Your task to perform on an android device: Is it going to rain tomorrow? Image 0: 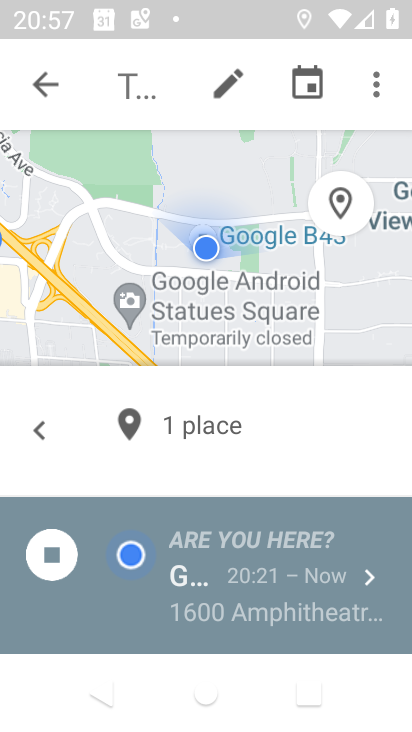
Step 0: press home button
Your task to perform on an android device: Is it going to rain tomorrow? Image 1: 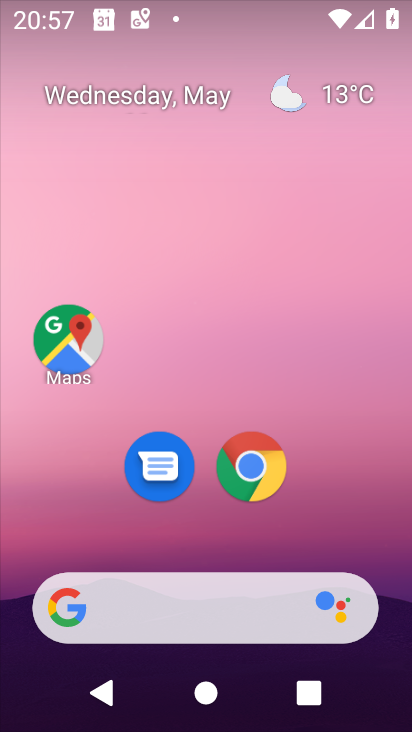
Step 1: click (339, 90)
Your task to perform on an android device: Is it going to rain tomorrow? Image 2: 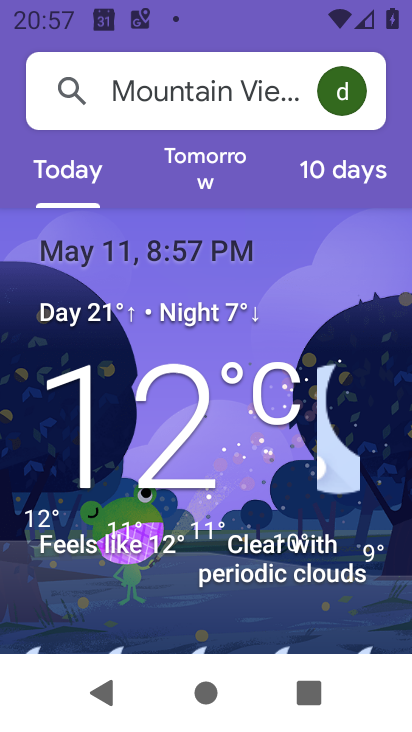
Step 2: click (206, 164)
Your task to perform on an android device: Is it going to rain tomorrow? Image 3: 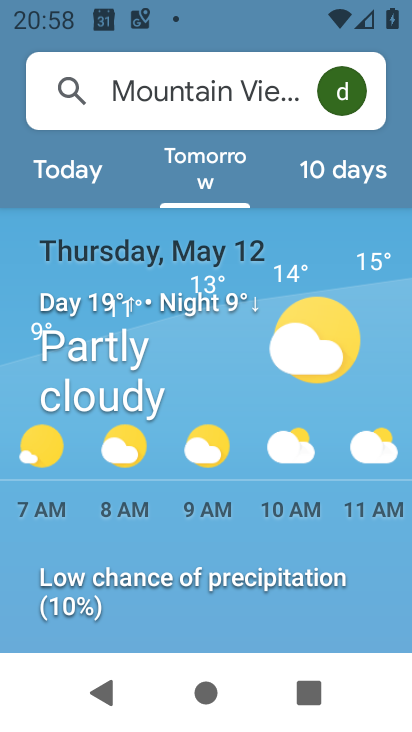
Step 3: drag from (306, 463) to (7, 456)
Your task to perform on an android device: Is it going to rain tomorrow? Image 4: 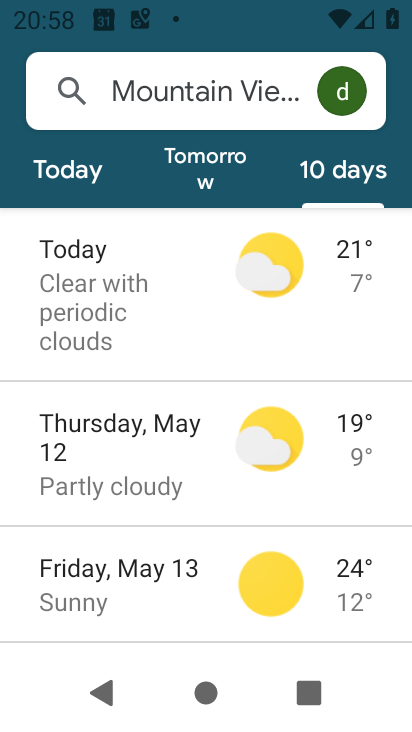
Step 4: click (217, 182)
Your task to perform on an android device: Is it going to rain tomorrow? Image 5: 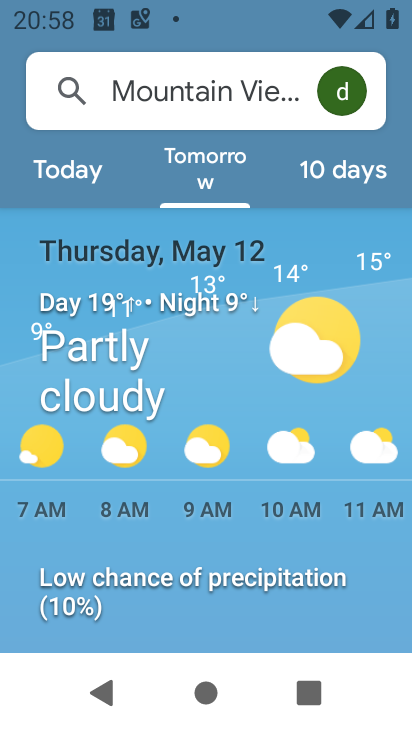
Step 5: drag from (351, 448) to (120, 456)
Your task to perform on an android device: Is it going to rain tomorrow? Image 6: 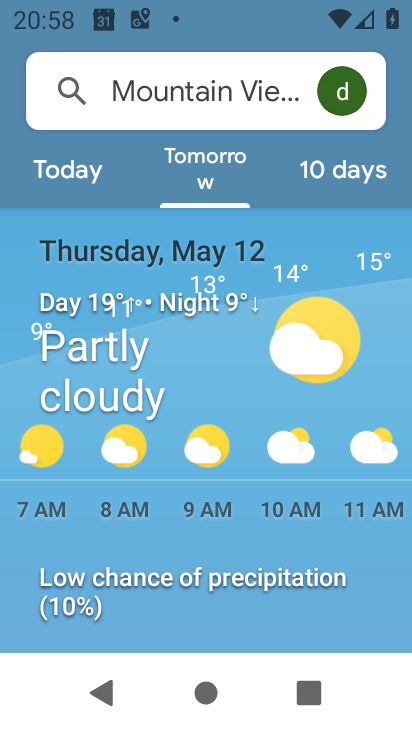
Step 6: drag from (94, 449) to (270, 479)
Your task to perform on an android device: Is it going to rain tomorrow? Image 7: 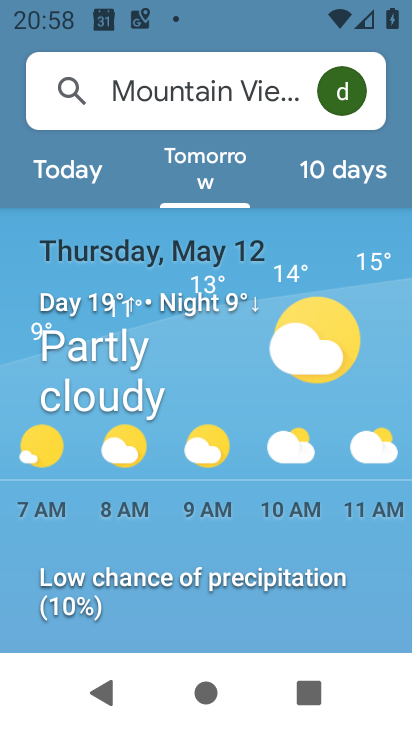
Step 7: drag from (351, 507) to (74, 517)
Your task to perform on an android device: Is it going to rain tomorrow? Image 8: 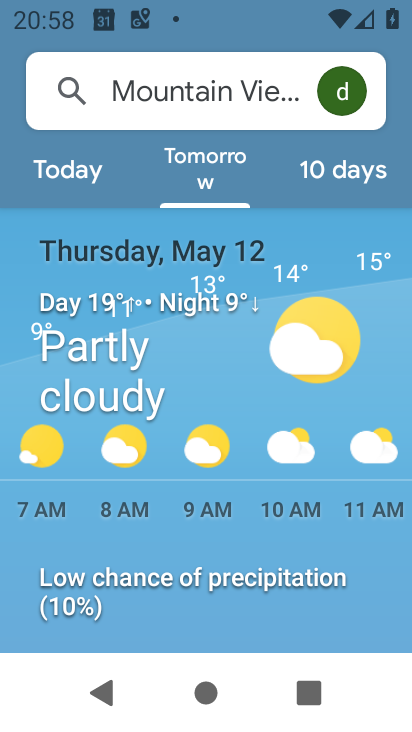
Step 8: drag from (371, 509) to (55, 518)
Your task to perform on an android device: Is it going to rain tomorrow? Image 9: 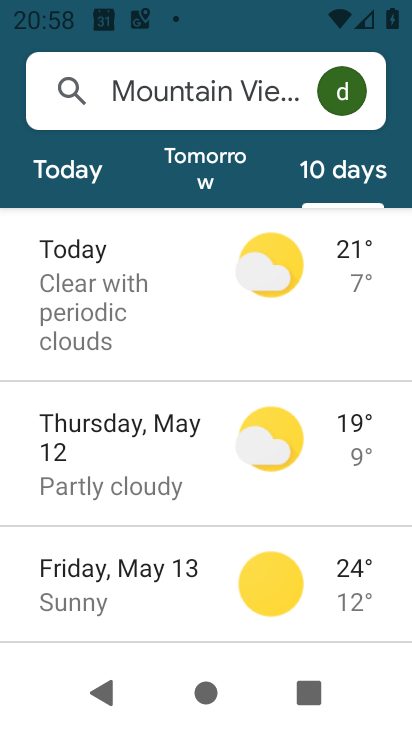
Step 9: click (195, 178)
Your task to perform on an android device: Is it going to rain tomorrow? Image 10: 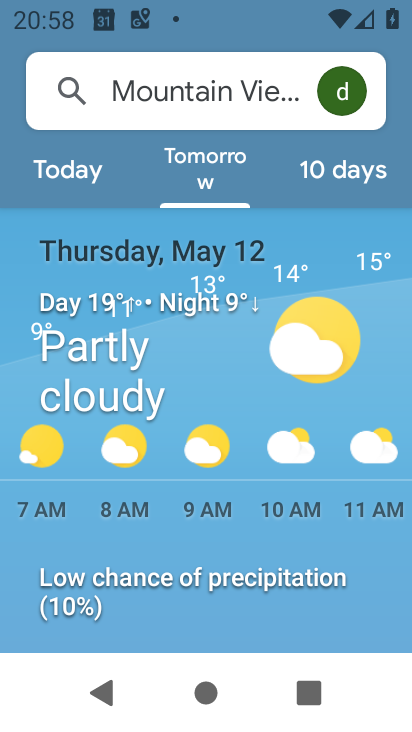
Step 10: drag from (175, 414) to (212, 251)
Your task to perform on an android device: Is it going to rain tomorrow? Image 11: 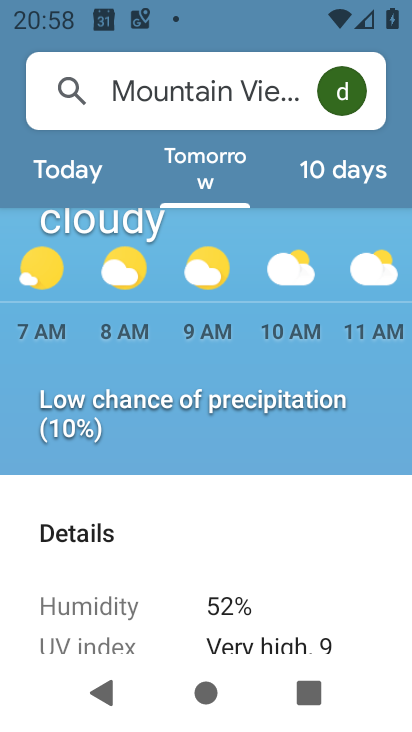
Step 11: drag from (377, 326) to (202, 334)
Your task to perform on an android device: Is it going to rain tomorrow? Image 12: 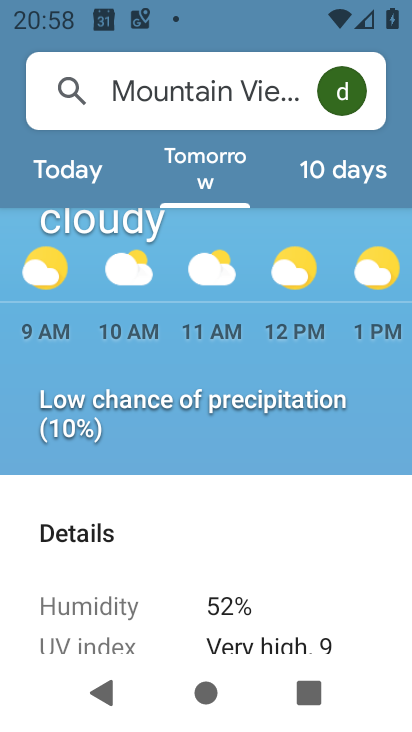
Step 12: drag from (389, 320) to (71, 327)
Your task to perform on an android device: Is it going to rain tomorrow? Image 13: 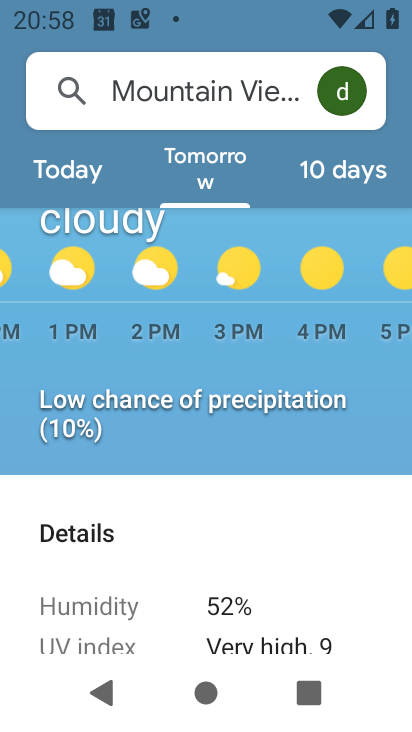
Step 13: drag from (372, 319) to (77, 329)
Your task to perform on an android device: Is it going to rain tomorrow? Image 14: 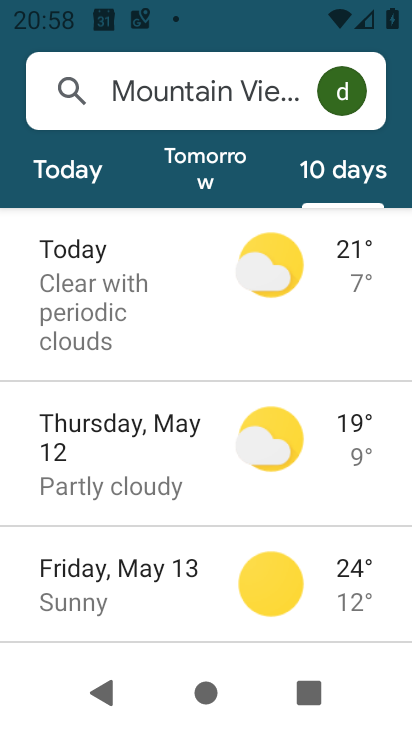
Step 14: click (202, 177)
Your task to perform on an android device: Is it going to rain tomorrow? Image 15: 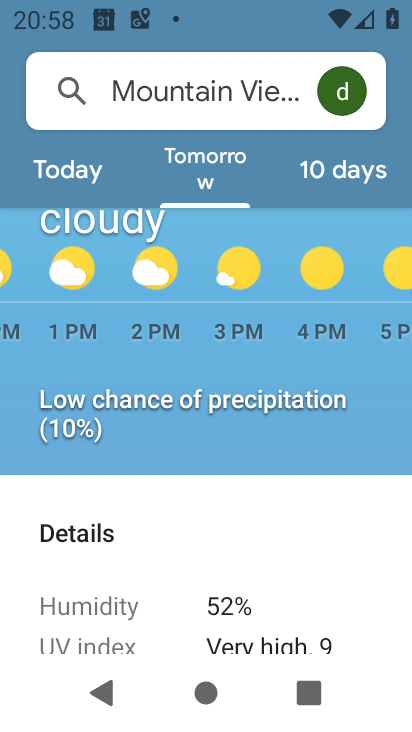
Step 15: task complete